Your task to perform on an android device: change notifications settings Image 0: 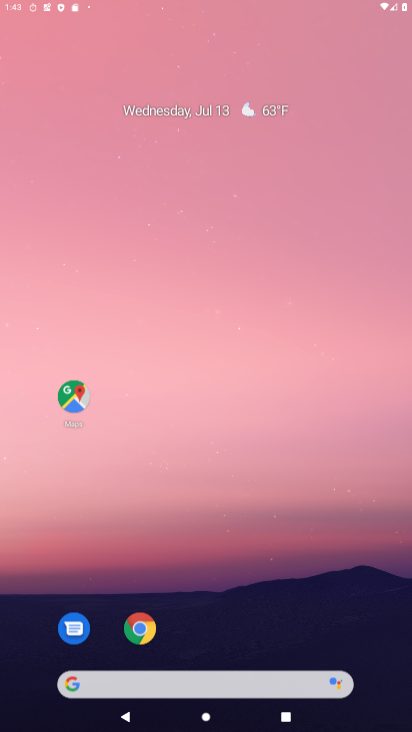
Step 0: click (266, 228)
Your task to perform on an android device: change notifications settings Image 1: 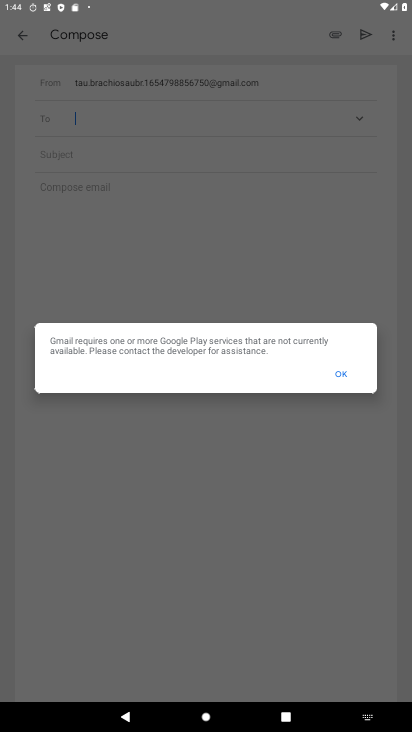
Step 1: press home button
Your task to perform on an android device: change notifications settings Image 2: 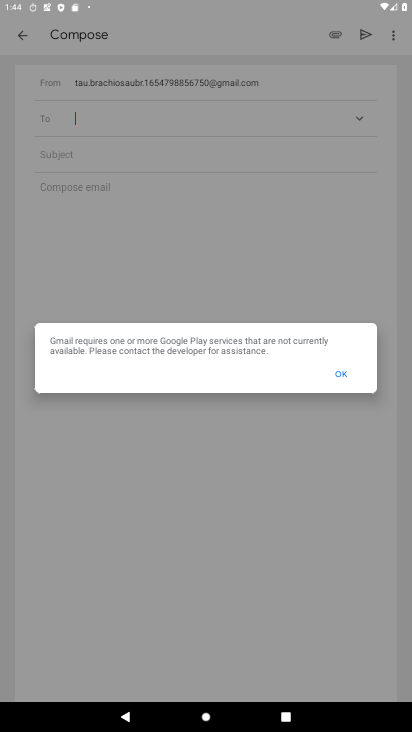
Step 2: drag from (185, 534) to (285, 113)
Your task to perform on an android device: change notifications settings Image 3: 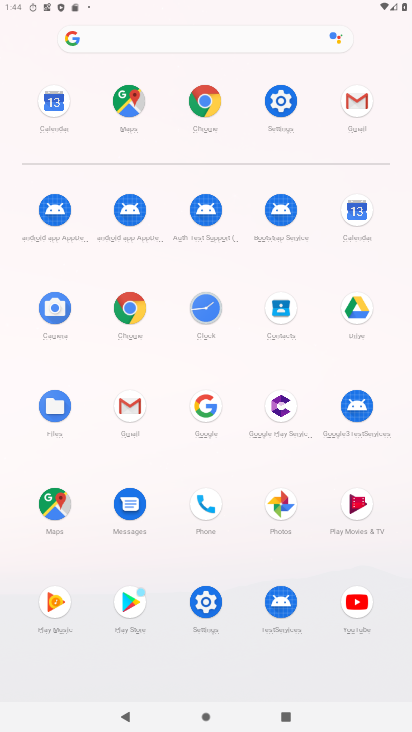
Step 3: click (209, 601)
Your task to perform on an android device: change notifications settings Image 4: 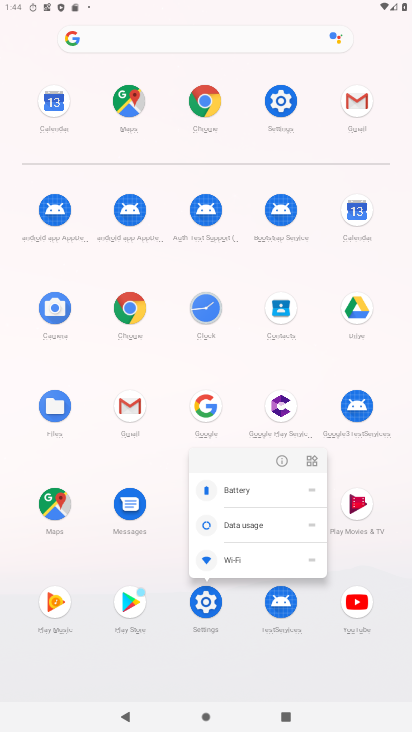
Step 4: click (277, 456)
Your task to perform on an android device: change notifications settings Image 5: 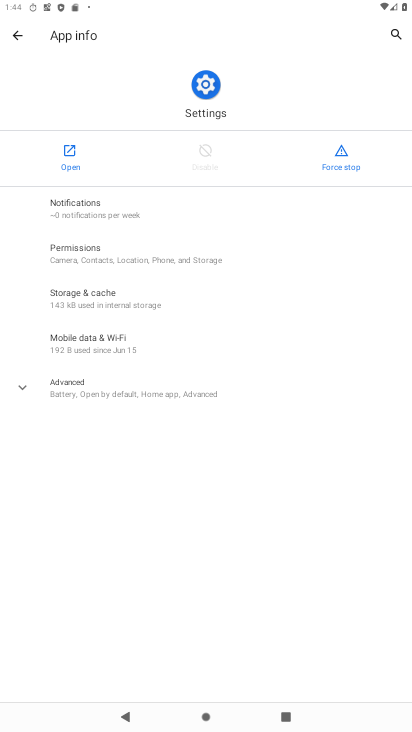
Step 5: drag from (239, 636) to (251, 339)
Your task to perform on an android device: change notifications settings Image 6: 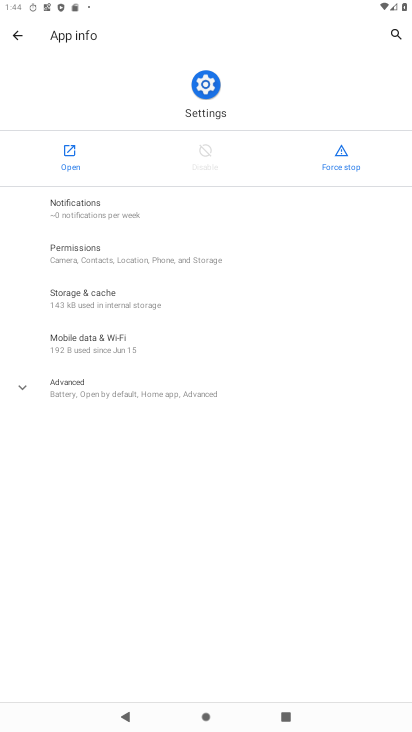
Step 6: click (68, 157)
Your task to perform on an android device: change notifications settings Image 7: 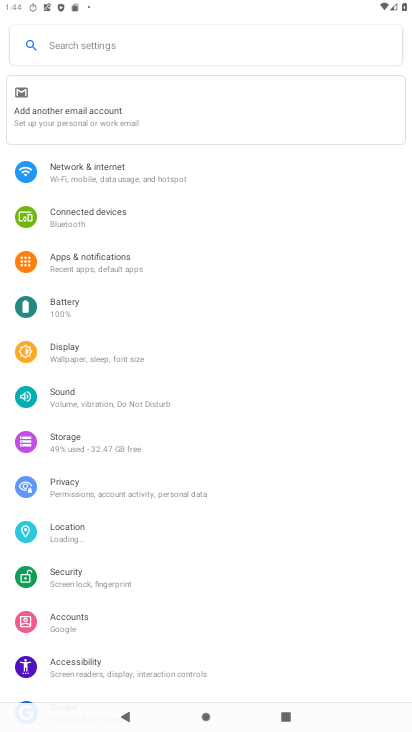
Step 7: click (105, 262)
Your task to perform on an android device: change notifications settings Image 8: 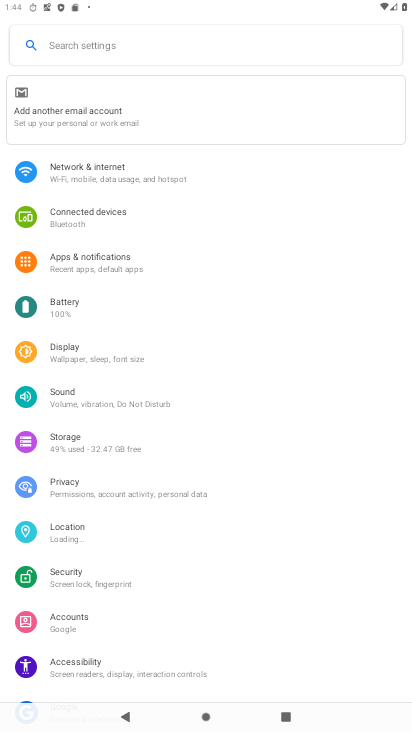
Step 8: click (105, 262)
Your task to perform on an android device: change notifications settings Image 9: 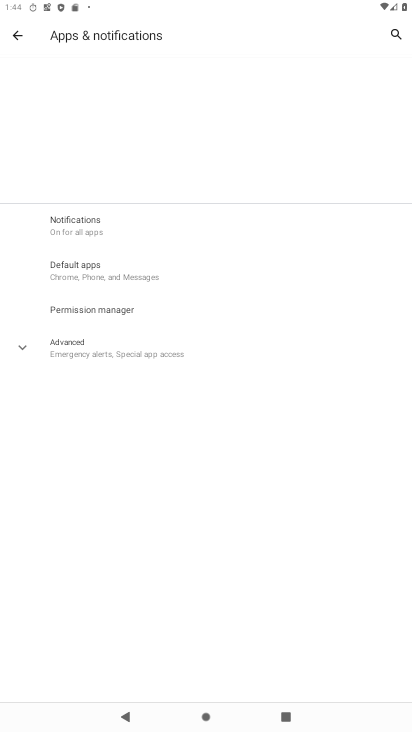
Step 9: drag from (249, 613) to (219, 290)
Your task to perform on an android device: change notifications settings Image 10: 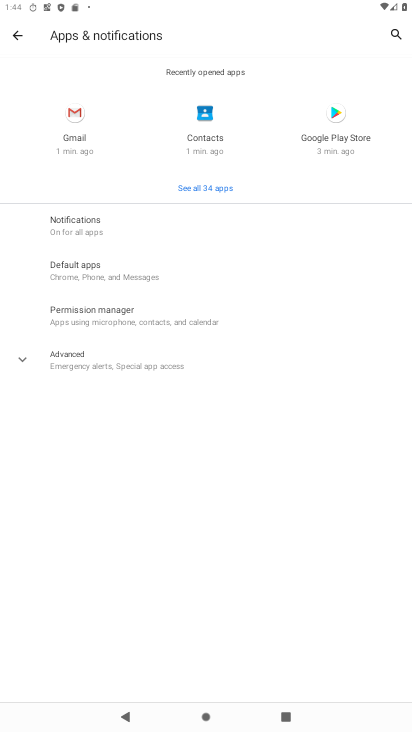
Step 10: click (71, 364)
Your task to perform on an android device: change notifications settings Image 11: 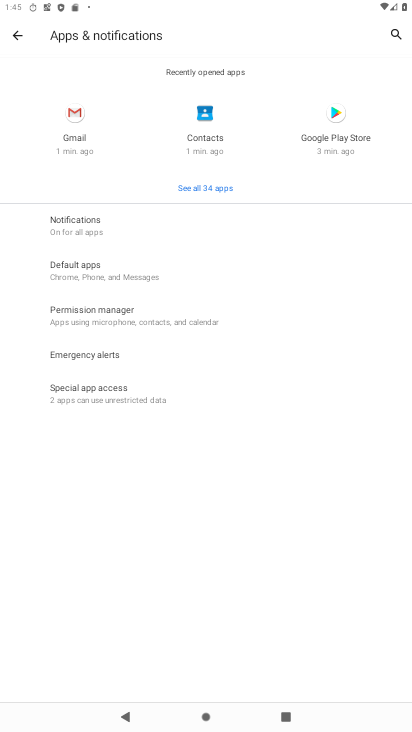
Step 11: click (131, 221)
Your task to perform on an android device: change notifications settings Image 12: 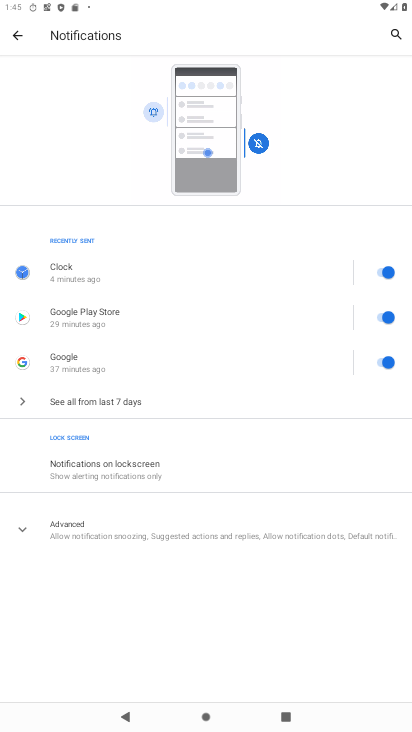
Step 12: drag from (234, 540) to (250, 293)
Your task to perform on an android device: change notifications settings Image 13: 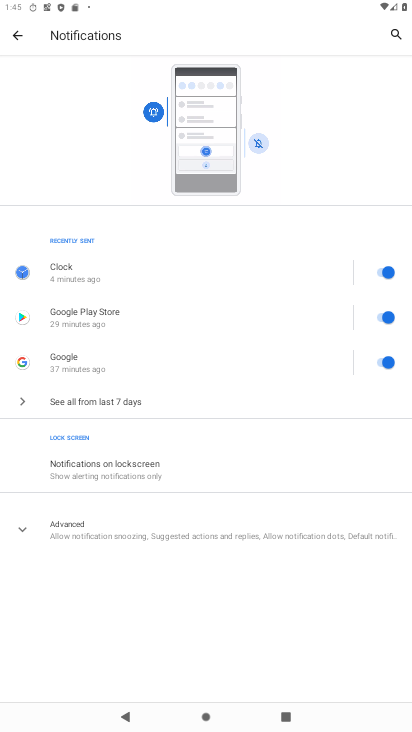
Step 13: click (97, 536)
Your task to perform on an android device: change notifications settings Image 14: 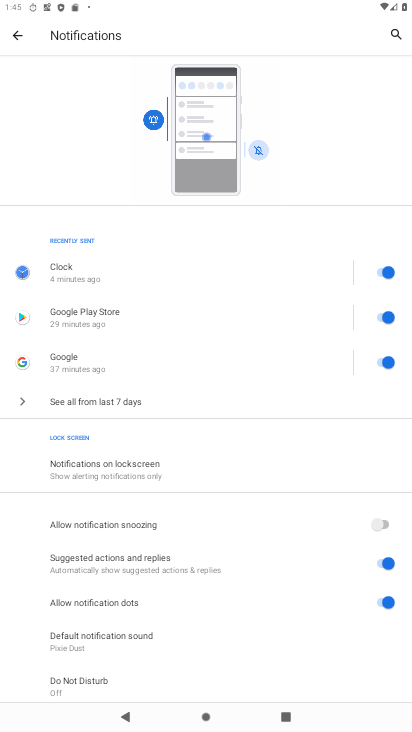
Step 14: drag from (158, 604) to (246, 271)
Your task to perform on an android device: change notifications settings Image 15: 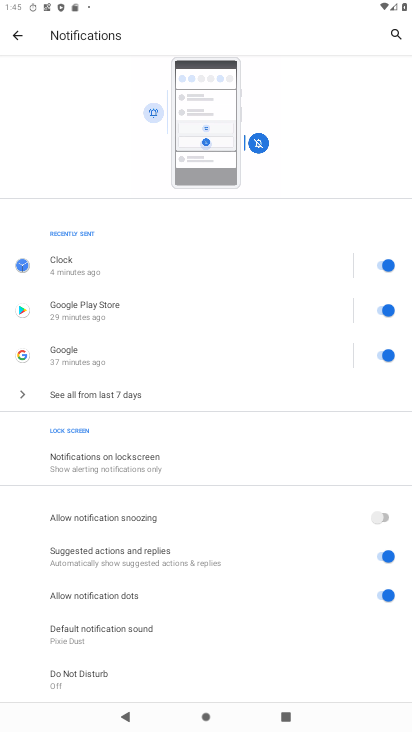
Step 15: click (388, 308)
Your task to perform on an android device: change notifications settings Image 16: 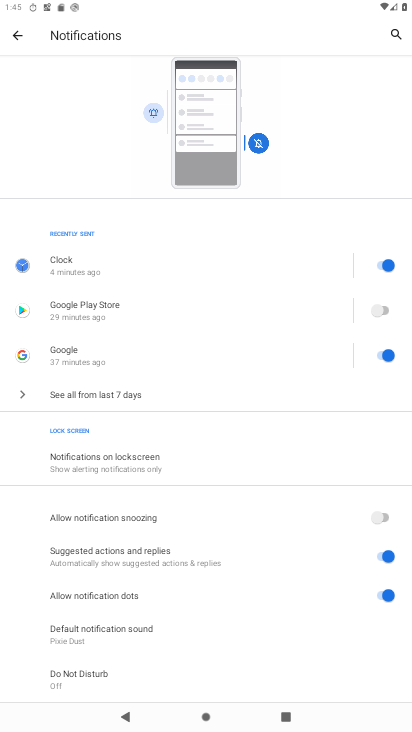
Step 16: task complete